Your task to perform on an android device: change the clock display to digital Image 0: 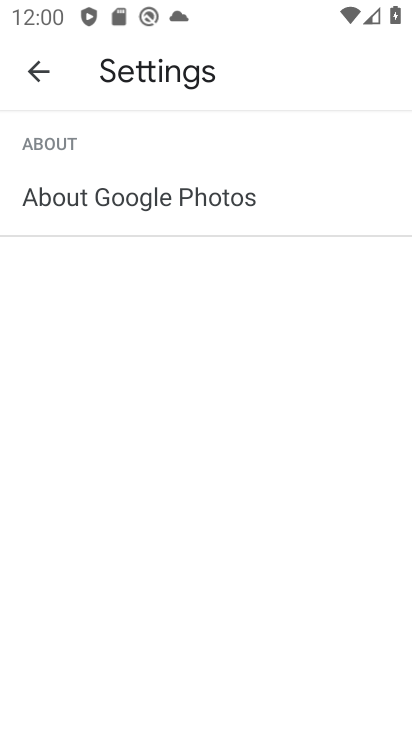
Step 0: click (29, 55)
Your task to perform on an android device: change the clock display to digital Image 1: 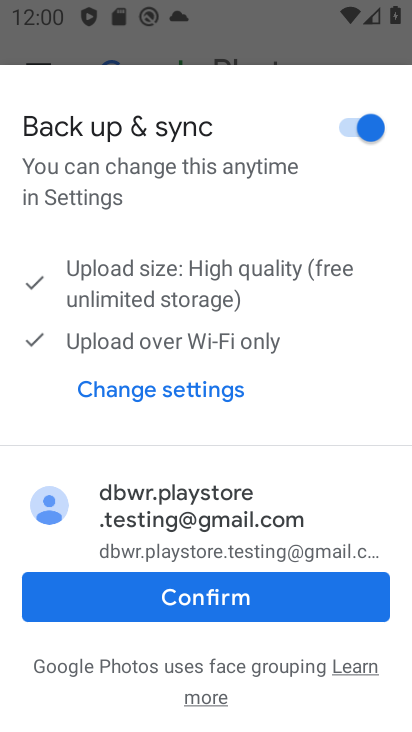
Step 1: press home button
Your task to perform on an android device: change the clock display to digital Image 2: 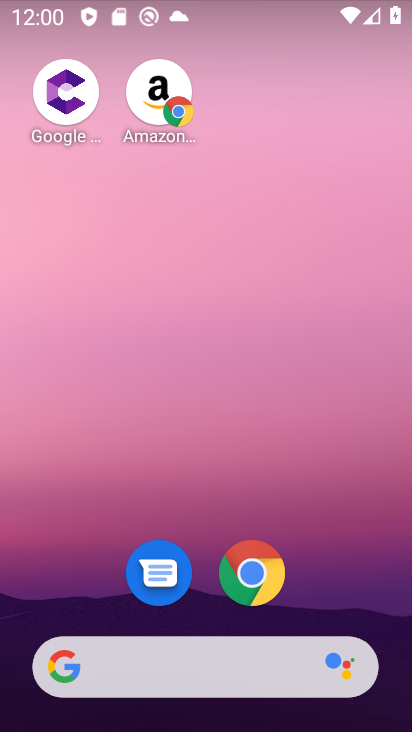
Step 2: drag from (373, 568) to (369, 108)
Your task to perform on an android device: change the clock display to digital Image 3: 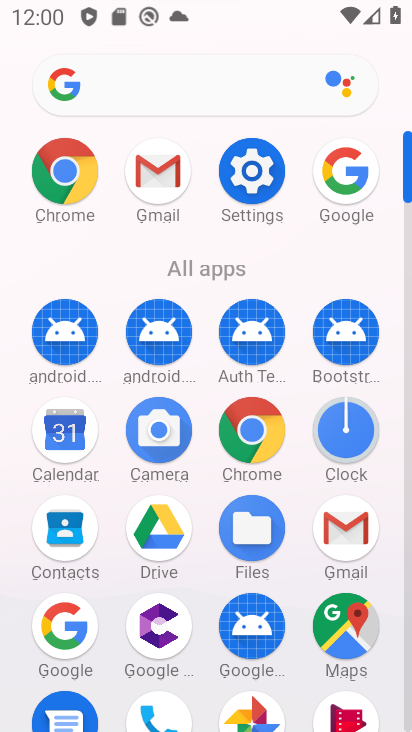
Step 3: click (353, 434)
Your task to perform on an android device: change the clock display to digital Image 4: 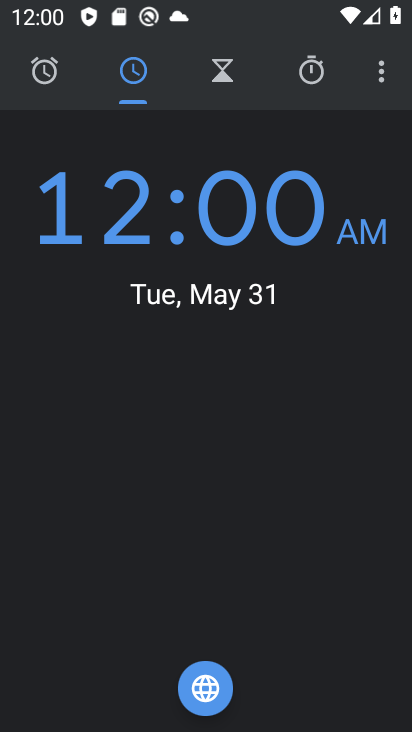
Step 4: click (368, 88)
Your task to perform on an android device: change the clock display to digital Image 5: 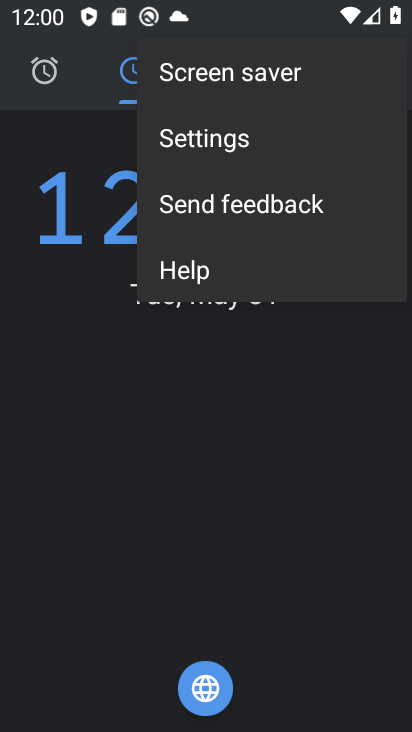
Step 5: click (186, 152)
Your task to perform on an android device: change the clock display to digital Image 6: 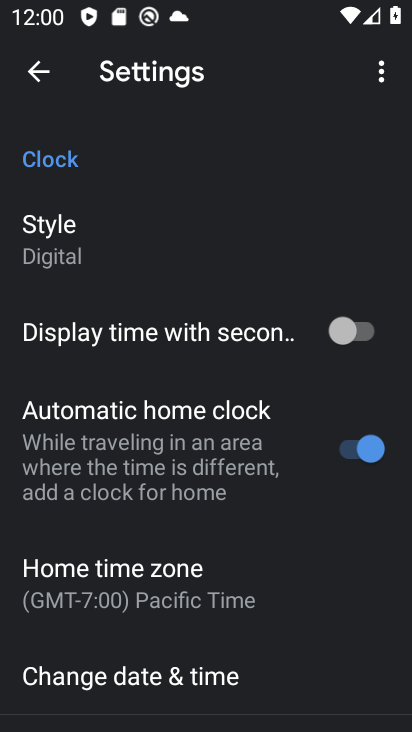
Step 6: click (76, 239)
Your task to perform on an android device: change the clock display to digital Image 7: 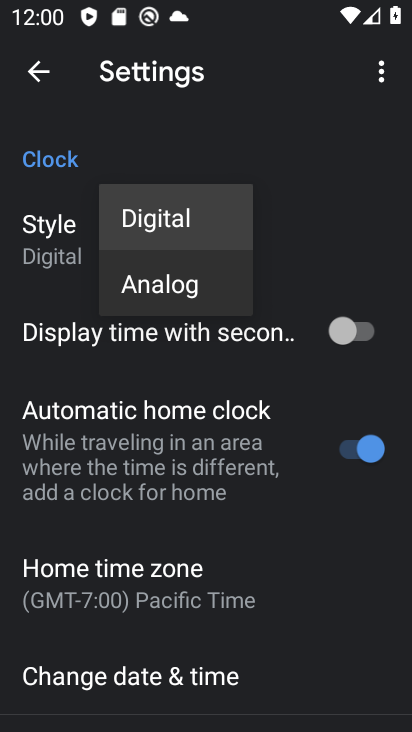
Step 7: task complete